Your task to perform on an android device: set an alarm Image 0: 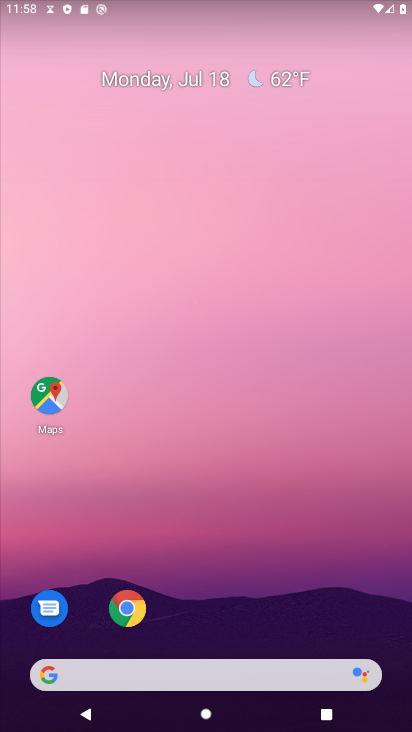
Step 0: drag from (249, 616) to (203, 105)
Your task to perform on an android device: set an alarm Image 1: 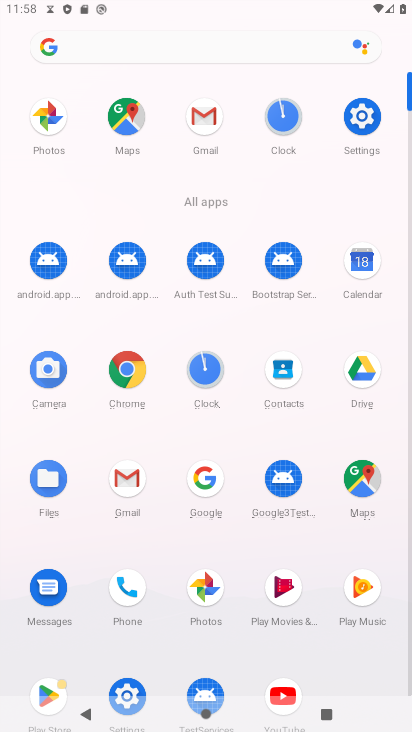
Step 1: click (279, 124)
Your task to perform on an android device: set an alarm Image 2: 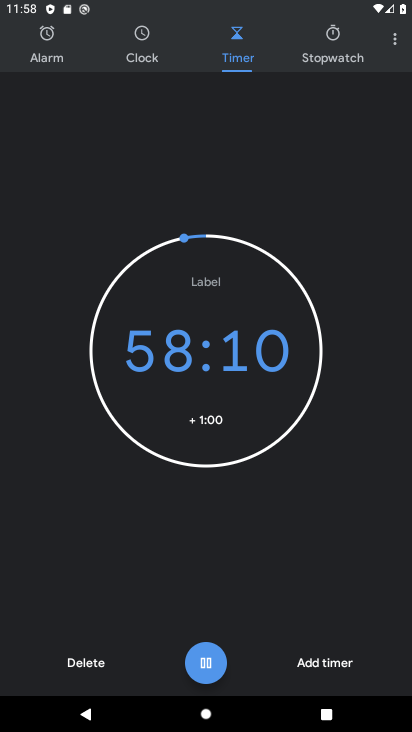
Step 2: task complete